Your task to perform on an android device: Go to notification settings Image 0: 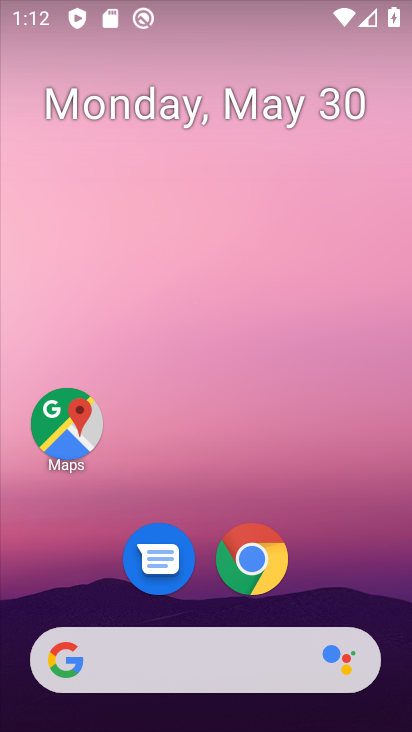
Step 0: drag from (329, 570) to (350, 9)
Your task to perform on an android device: Go to notification settings Image 1: 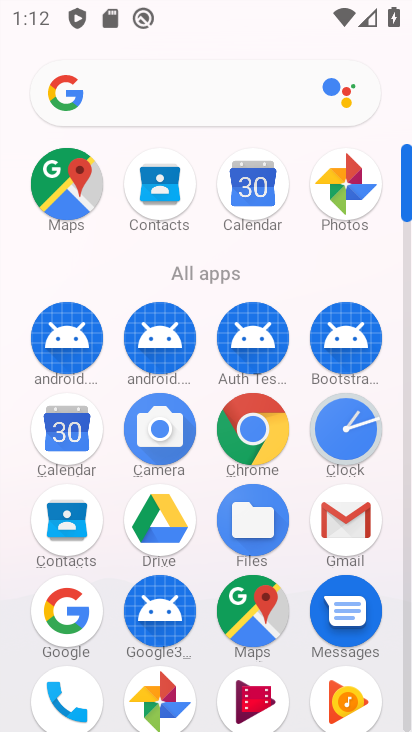
Step 1: drag from (310, 565) to (332, 144)
Your task to perform on an android device: Go to notification settings Image 2: 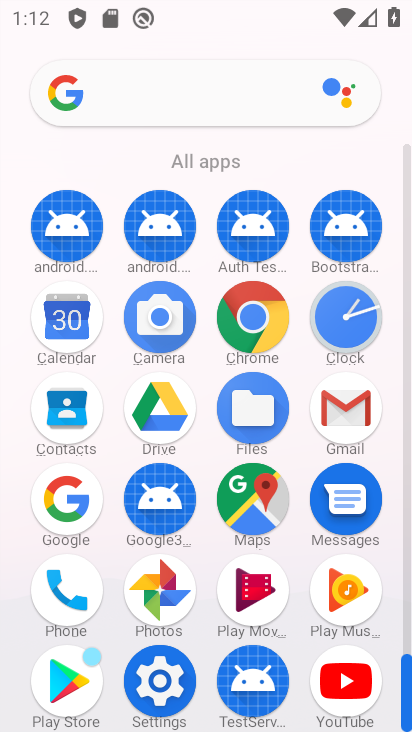
Step 2: click (153, 686)
Your task to perform on an android device: Go to notification settings Image 3: 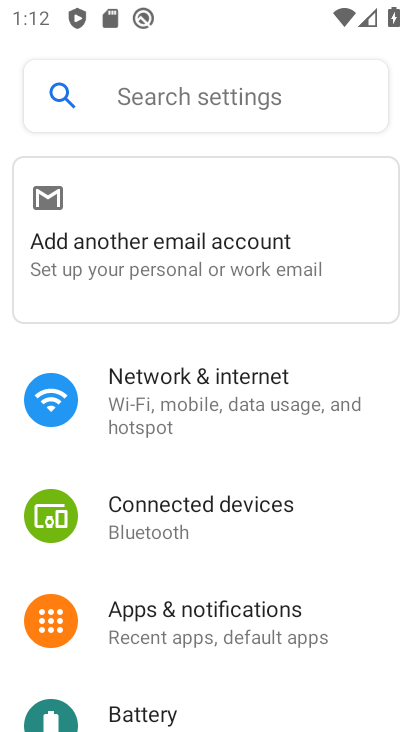
Step 3: click (168, 630)
Your task to perform on an android device: Go to notification settings Image 4: 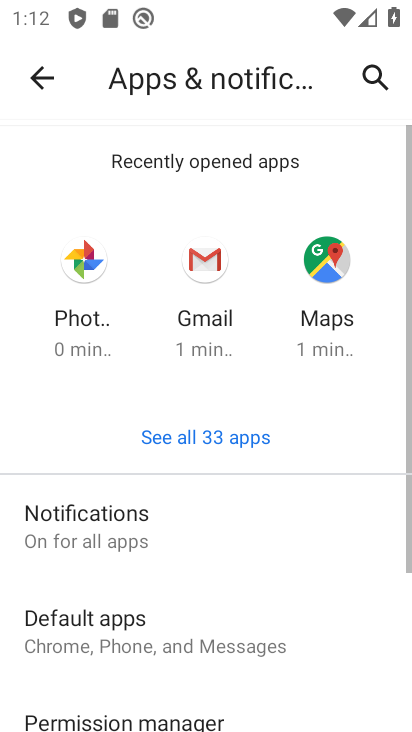
Step 4: click (99, 533)
Your task to perform on an android device: Go to notification settings Image 5: 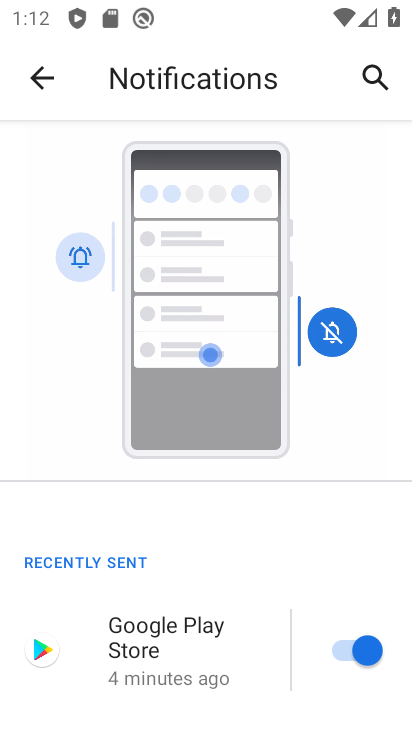
Step 5: task complete